Your task to perform on an android device: make emails show in primary in the gmail app Image 0: 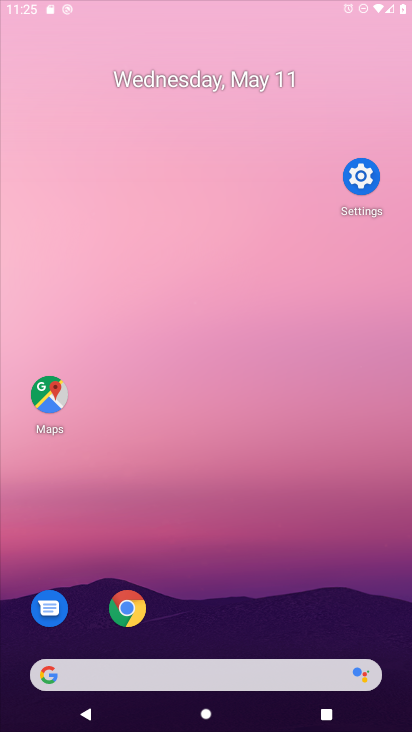
Step 0: click (185, 355)
Your task to perform on an android device: make emails show in primary in the gmail app Image 1: 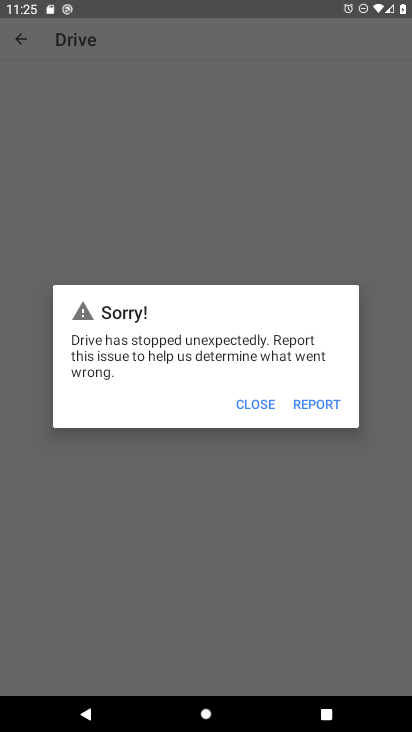
Step 1: click (259, 392)
Your task to perform on an android device: make emails show in primary in the gmail app Image 2: 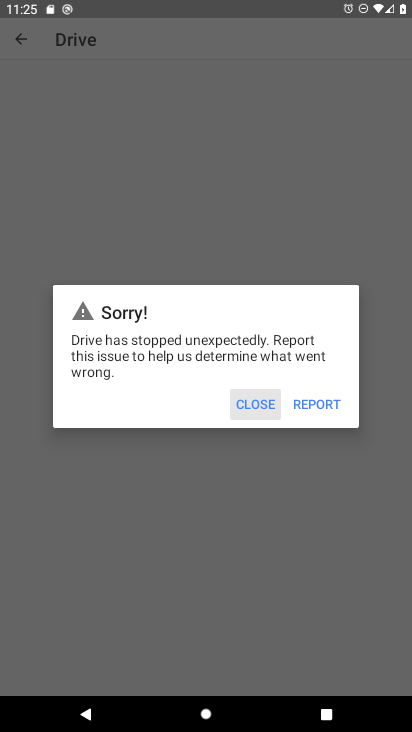
Step 2: click (259, 392)
Your task to perform on an android device: make emails show in primary in the gmail app Image 3: 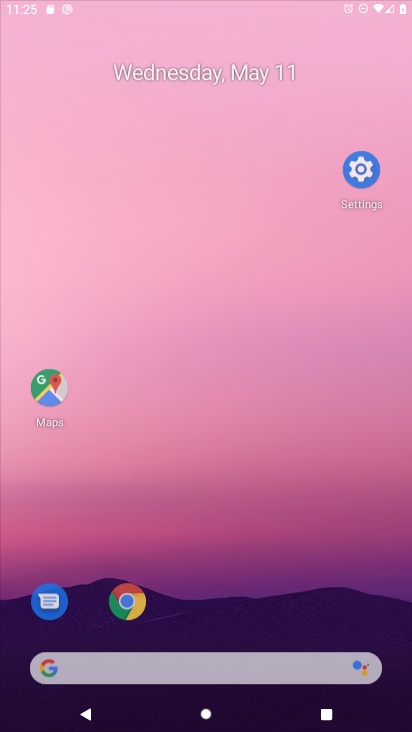
Step 3: click (257, 389)
Your task to perform on an android device: make emails show in primary in the gmail app Image 4: 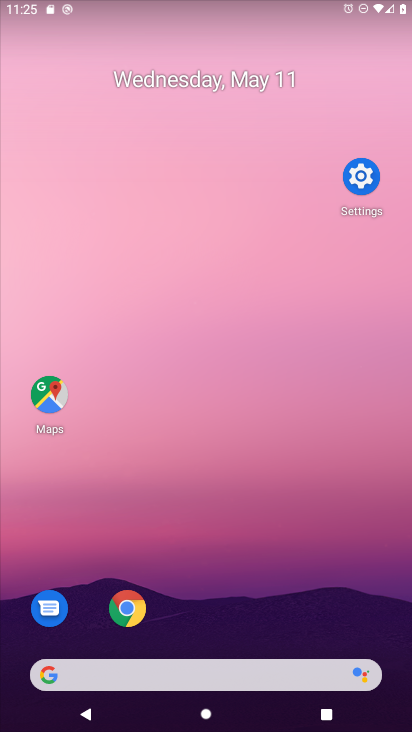
Step 4: click (90, 106)
Your task to perform on an android device: make emails show in primary in the gmail app Image 5: 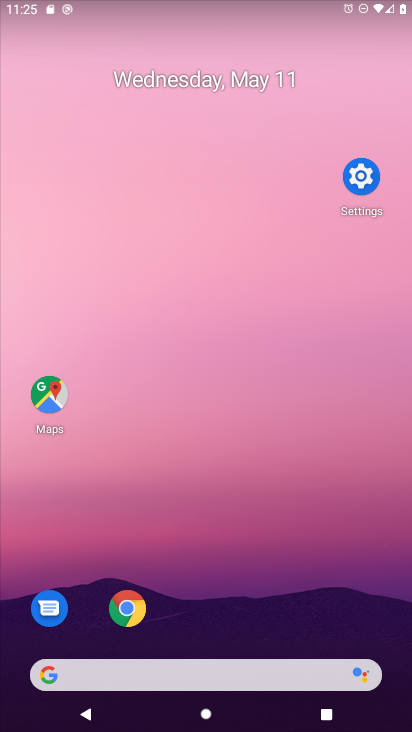
Step 5: drag from (266, 505) to (116, 145)
Your task to perform on an android device: make emails show in primary in the gmail app Image 6: 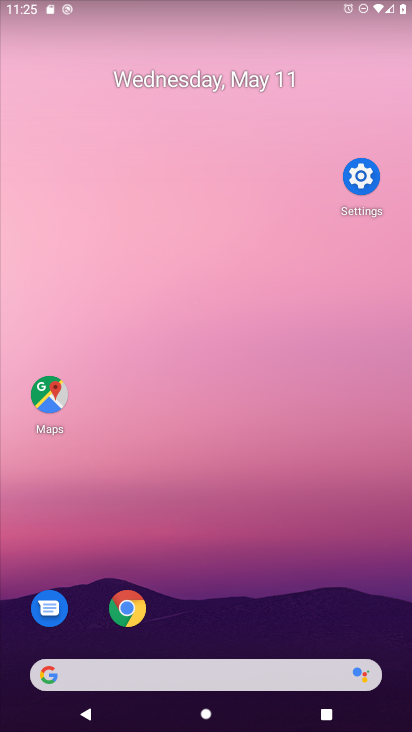
Step 6: drag from (272, 530) to (224, 62)
Your task to perform on an android device: make emails show in primary in the gmail app Image 7: 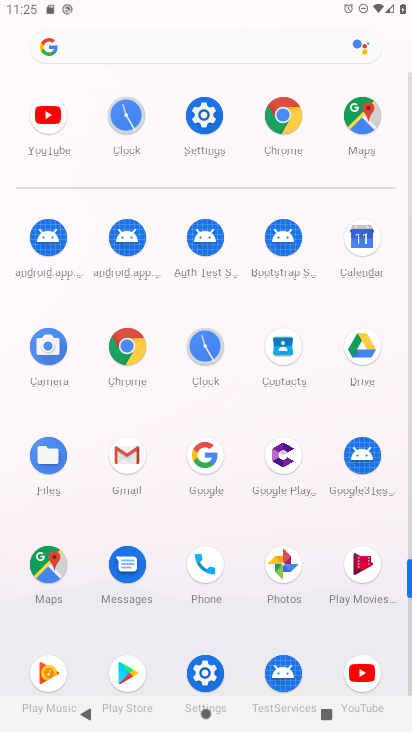
Step 7: click (119, 464)
Your task to perform on an android device: make emails show in primary in the gmail app Image 8: 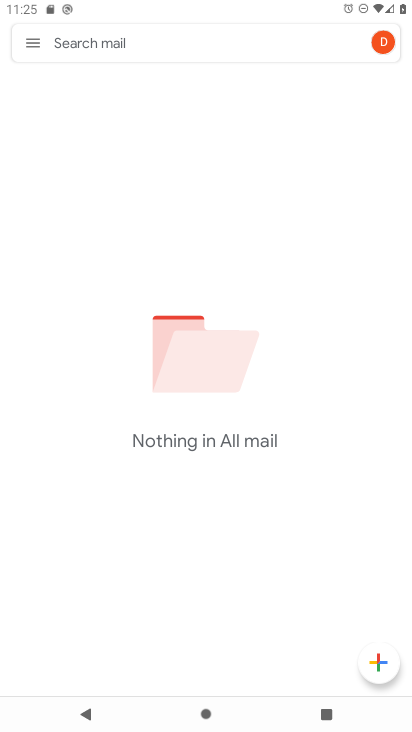
Step 8: click (29, 44)
Your task to perform on an android device: make emails show in primary in the gmail app Image 9: 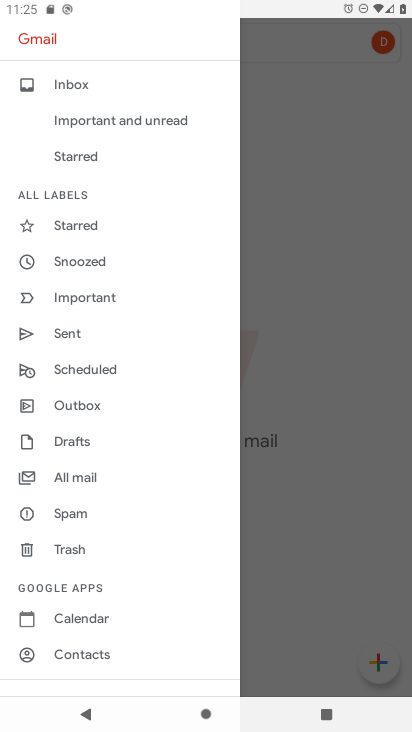
Step 9: click (75, 474)
Your task to perform on an android device: make emails show in primary in the gmail app Image 10: 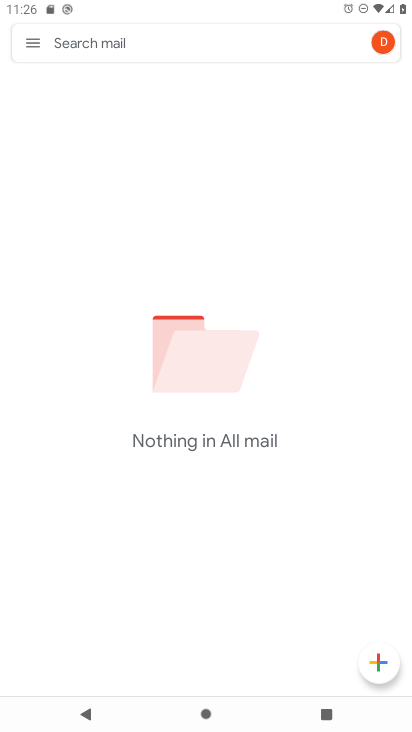
Step 10: task complete